Your task to perform on an android device: Search for the best rated phone case for the iPhone 8. Image 0: 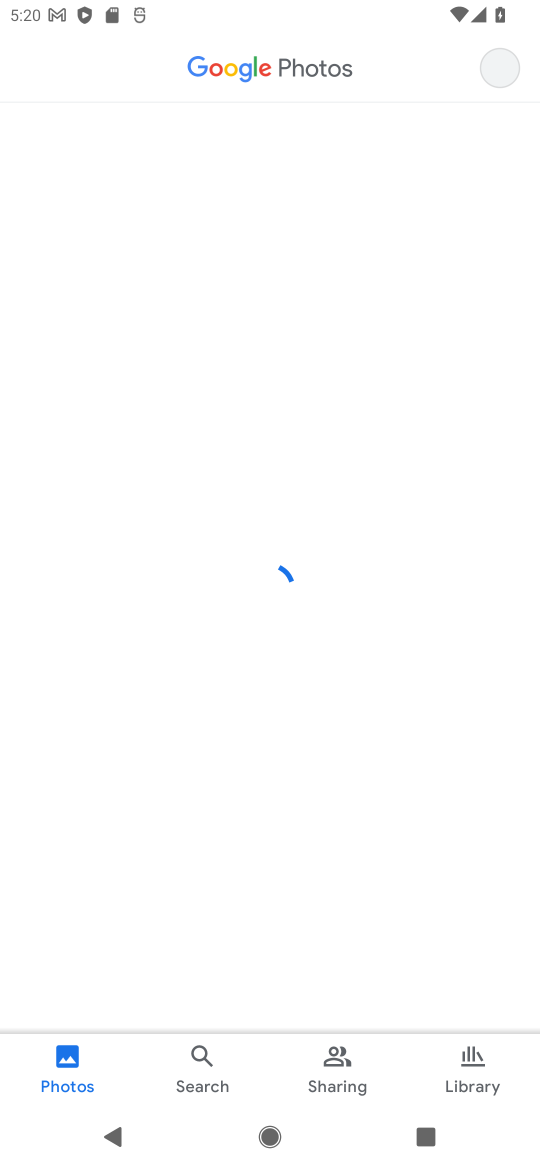
Step 0: press home button
Your task to perform on an android device: Search for the best rated phone case for the iPhone 8. Image 1: 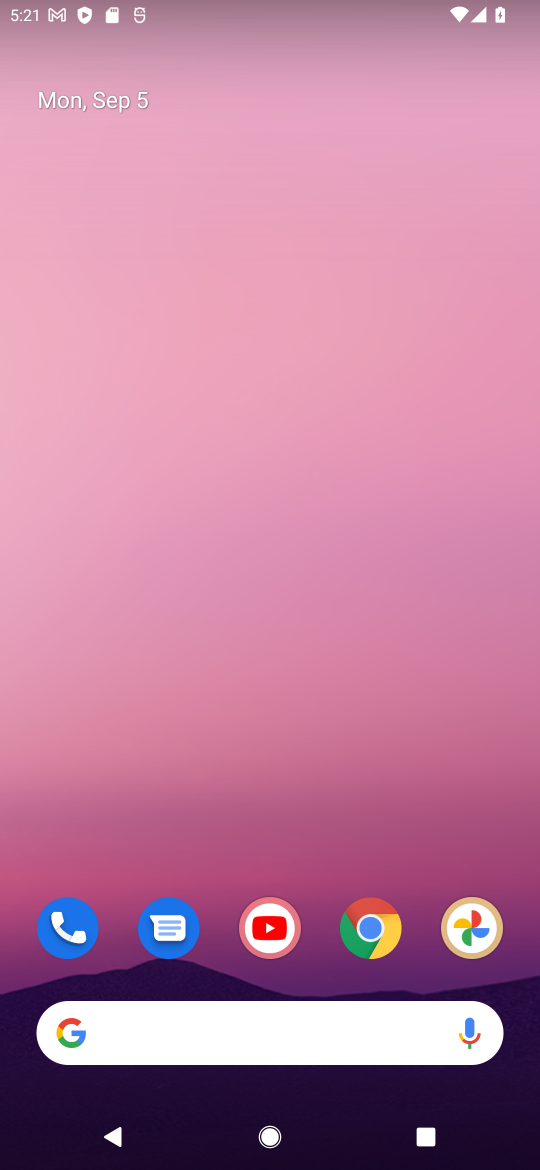
Step 1: click (372, 933)
Your task to perform on an android device: Search for the best rated phone case for the iPhone 8. Image 2: 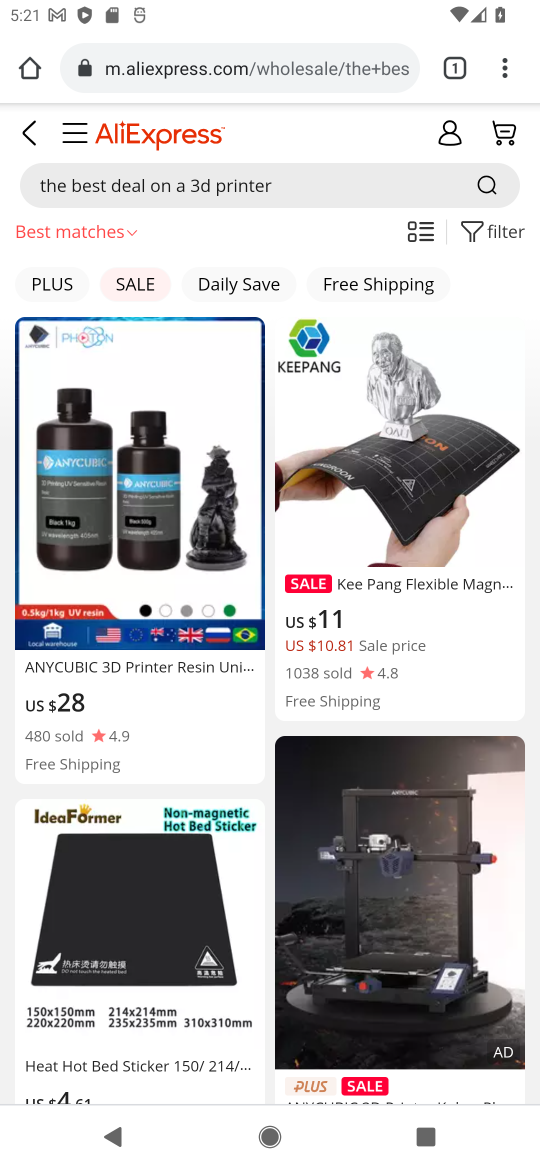
Step 2: click (328, 69)
Your task to perform on an android device: Search for the best rated phone case for the iPhone 8. Image 3: 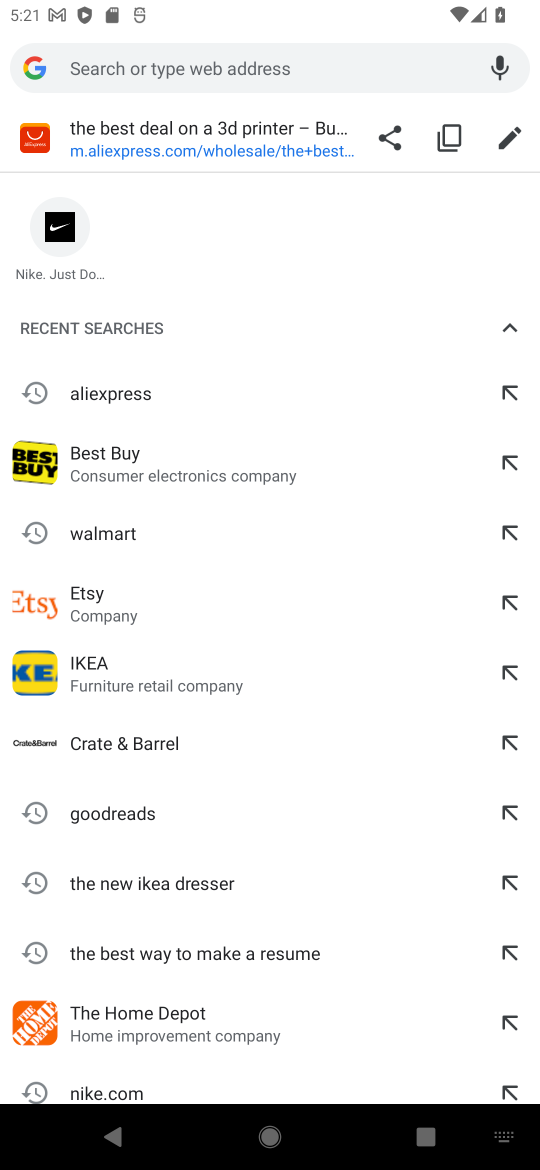
Step 3: type "the best rated phone case for the iPhone 8."
Your task to perform on an android device: Search for the best rated phone case for the iPhone 8. Image 4: 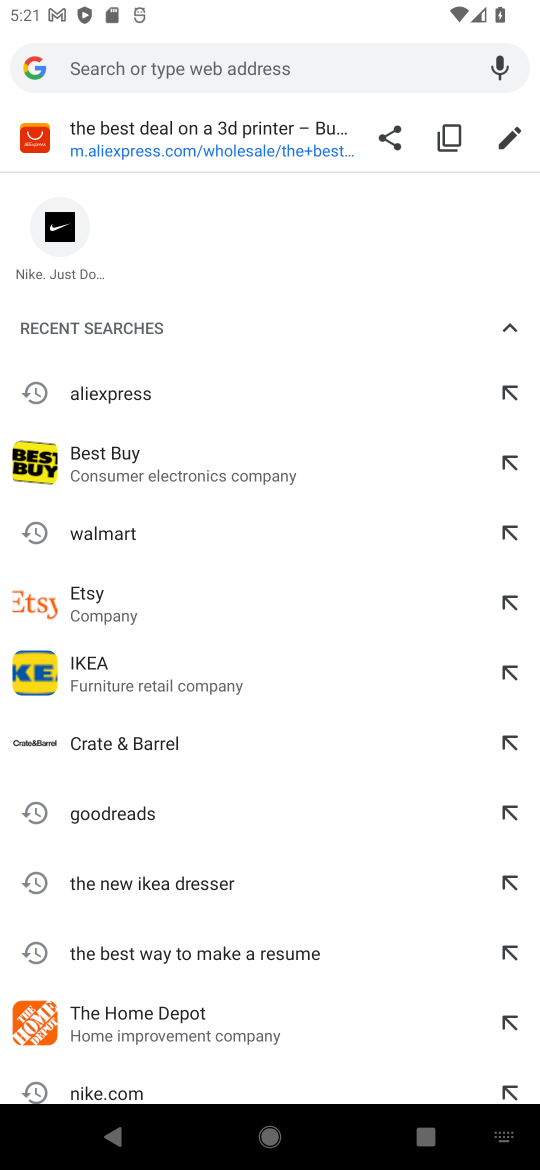
Step 4: click (291, 73)
Your task to perform on an android device: Search for the best rated phone case for the iPhone 8. Image 5: 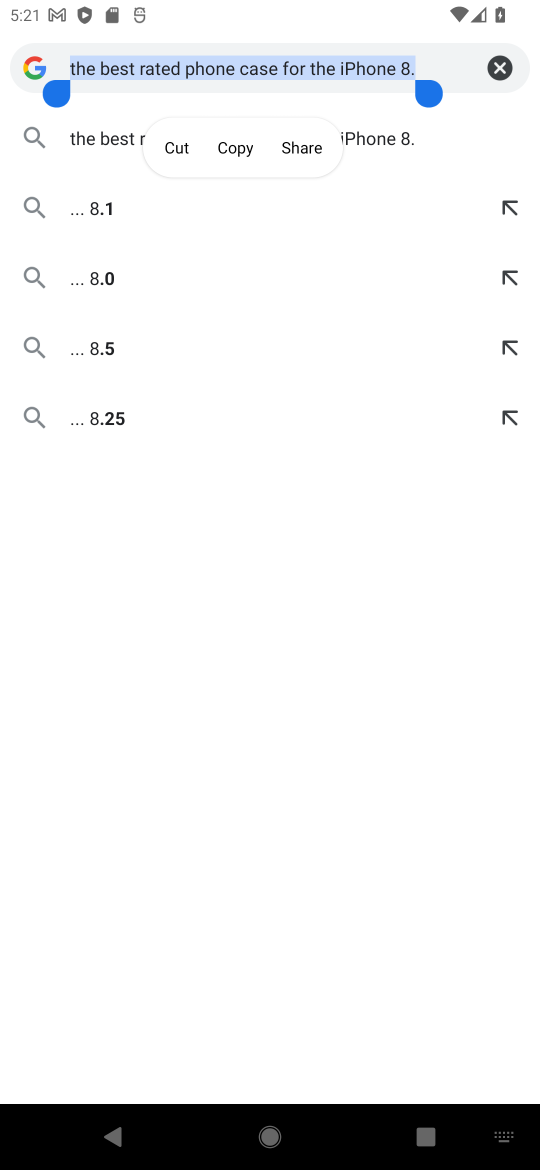
Step 5: click (466, 72)
Your task to perform on an android device: Search for the best rated phone case for the iPhone 8. Image 6: 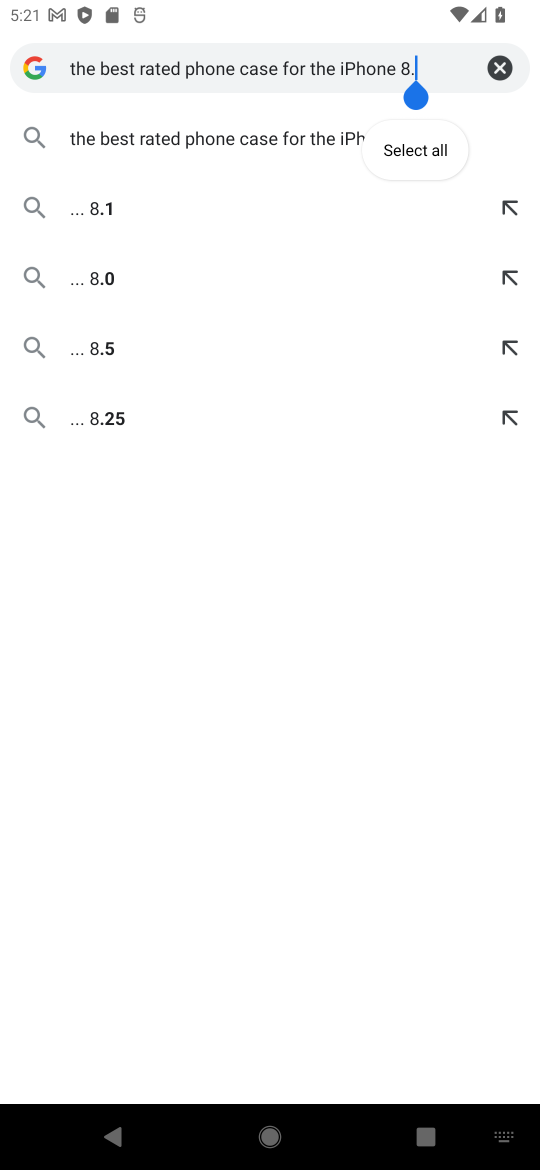
Step 6: click (279, 142)
Your task to perform on an android device: Search for the best rated phone case for the iPhone 8. Image 7: 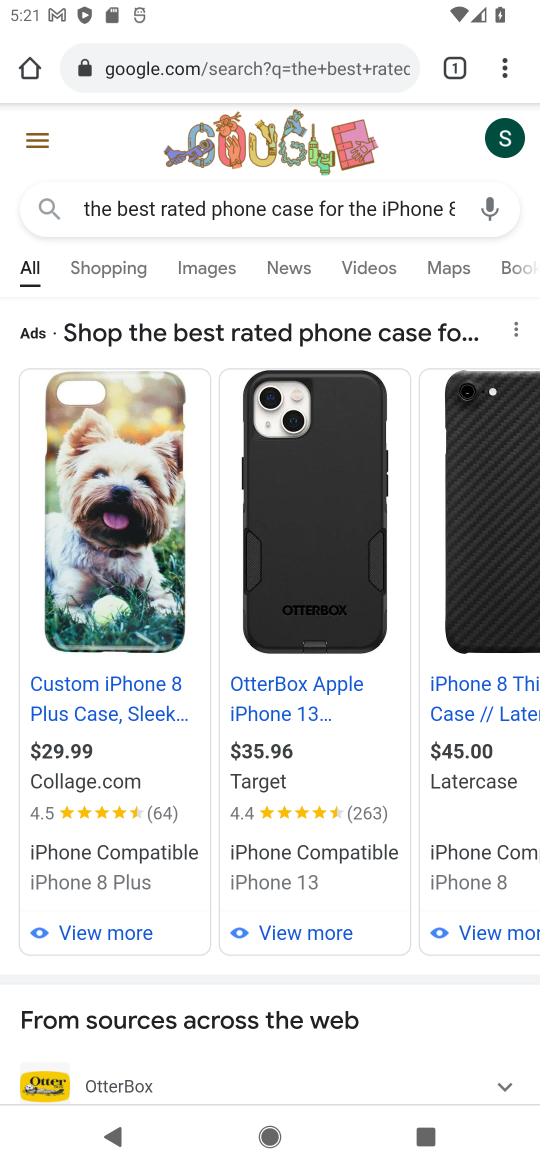
Step 7: task complete